Your task to perform on an android device: delete the emails in spam in the gmail app Image 0: 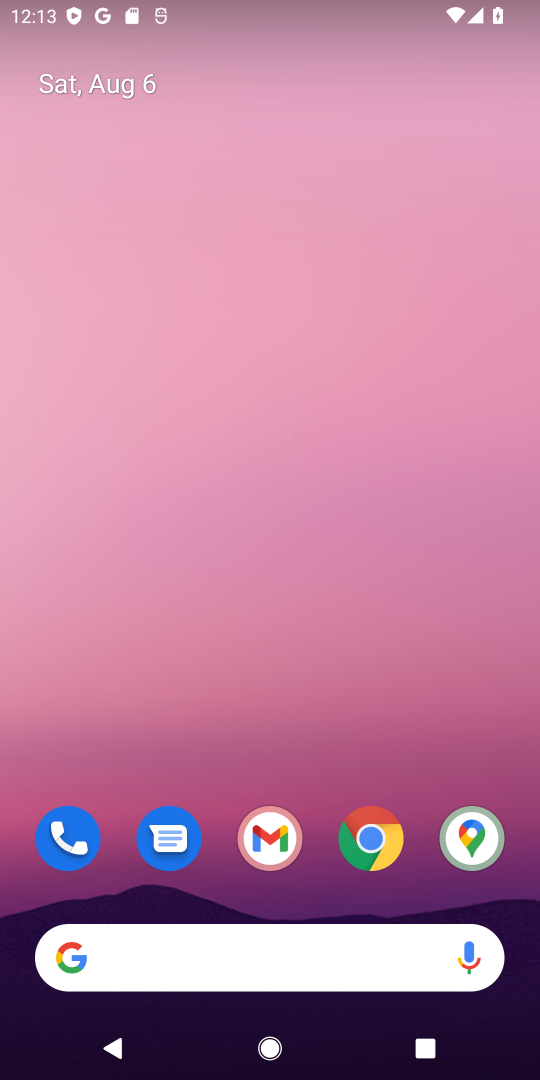
Step 0: click (266, 823)
Your task to perform on an android device: delete the emails in spam in the gmail app Image 1: 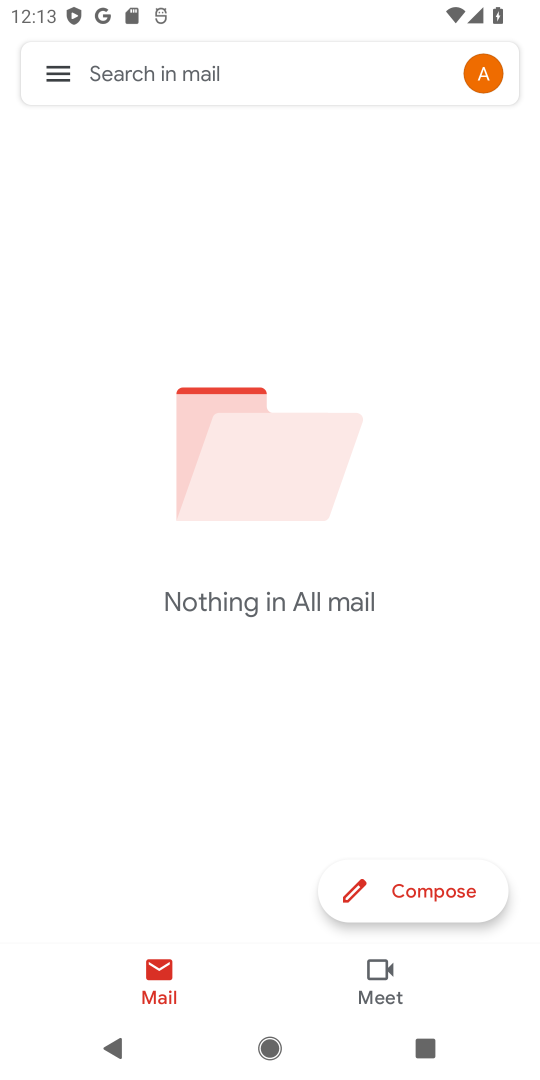
Step 1: click (55, 66)
Your task to perform on an android device: delete the emails in spam in the gmail app Image 2: 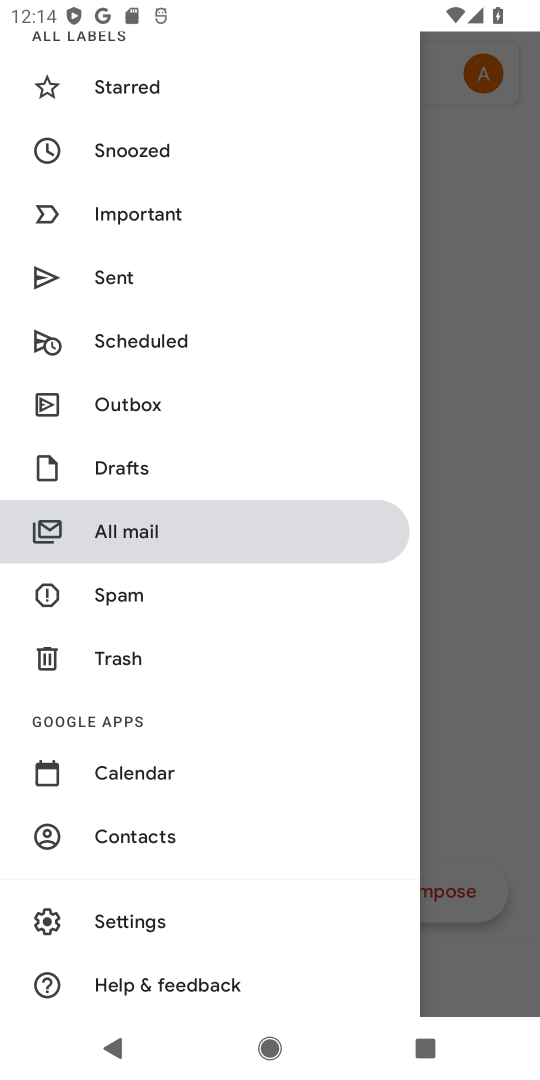
Step 2: click (146, 586)
Your task to perform on an android device: delete the emails in spam in the gmail app Image 3: 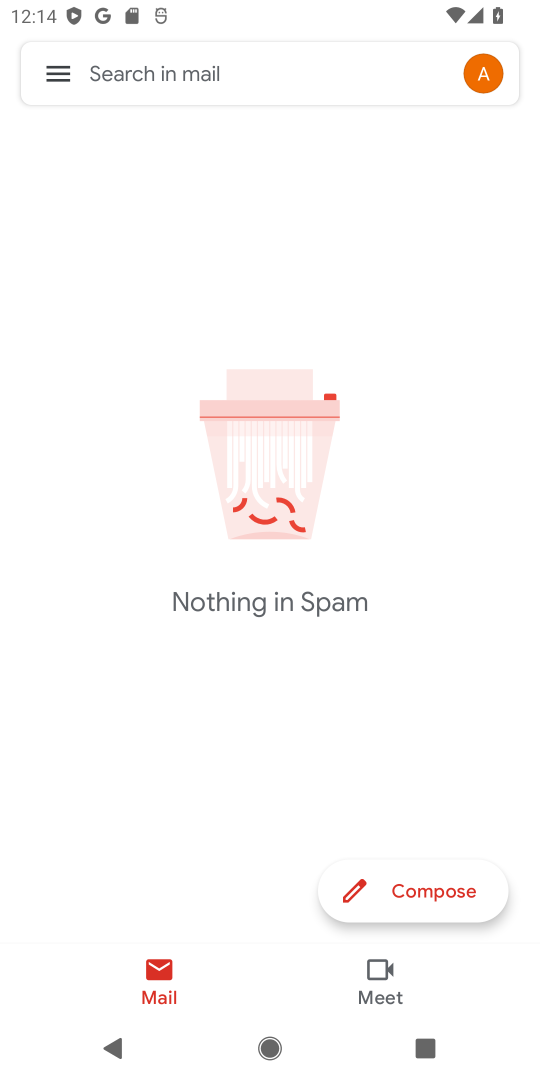
Step 3: task complete